Your task to perform on an android device: turn on airplane mode Image 0: 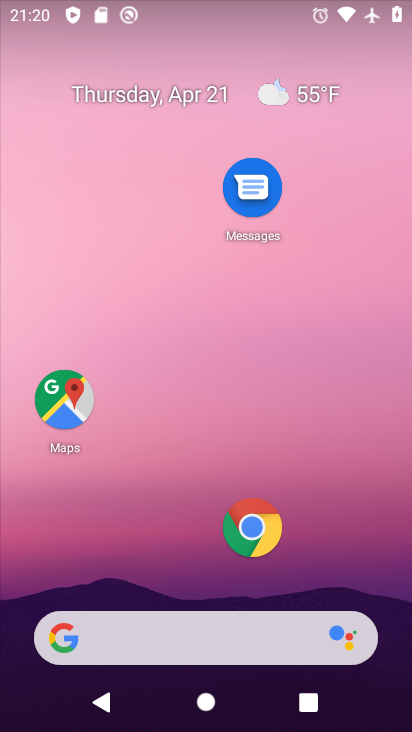
Step 0: drag from (178, 577) to (275, 173)
Your task to perform on an android device: turn on airplane mode Image 1: 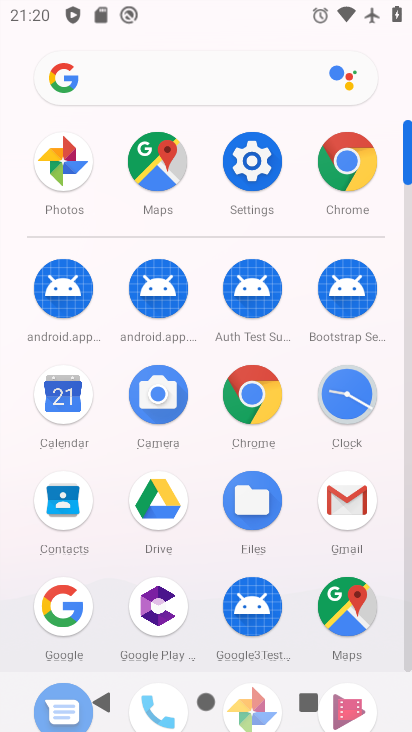
Step 1: click (265, 178)
Your task to perform on an android device: turn on airplane mode Image 2: 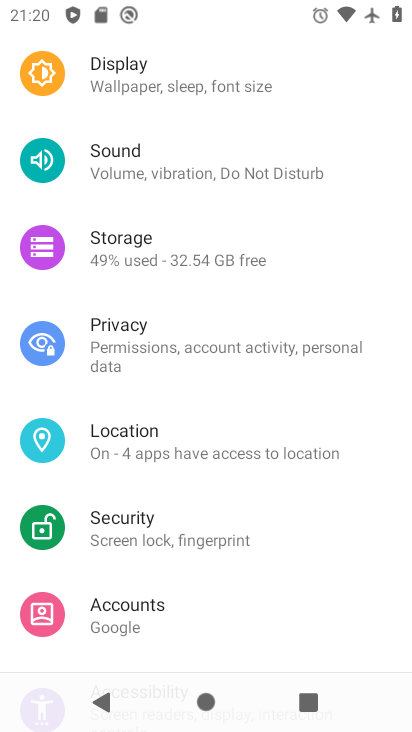
Step 2: drag from (264, 140) to (203, 454)
Your task to perform on an android device: turn on airplane mode Image 3: 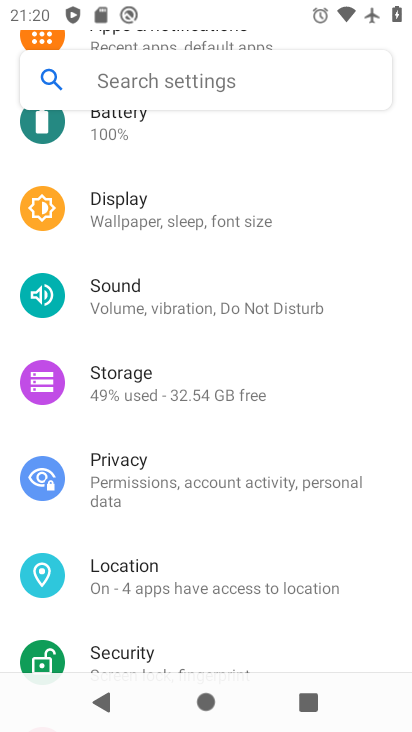
Step 3: drag from (222, 212) to (137, 587)
Your task to perform on an android device: turn on airplane mode Image 4: 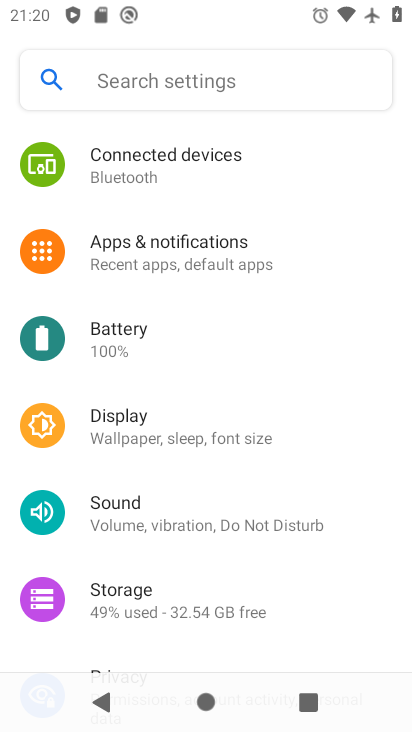
Step 4: drag from (202, 277) to (113, 524)
Your task to perform on an android device: turn on airplane mode Image 5: 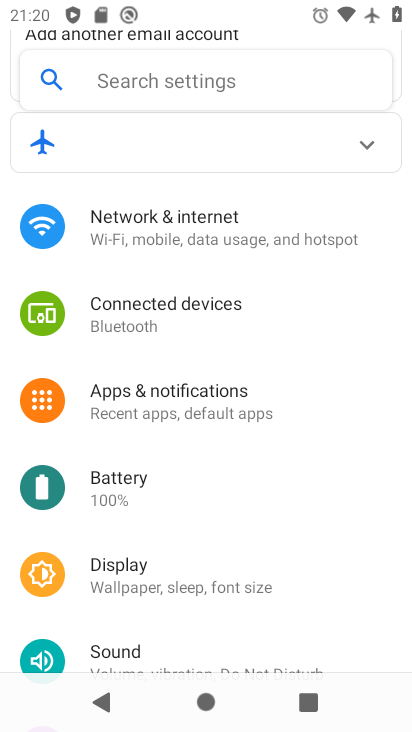
Step 5: click (179, 227)
Your task to perform on an android device: turn on airplane mode Image 6: 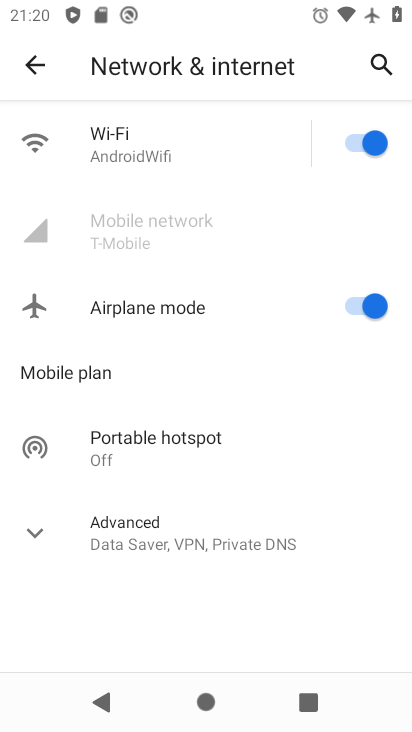
Step 6: task complete